Your task to perform on an android device: Clear the cart on newegg. Add "macbook" to the cart on newegg Image 0: 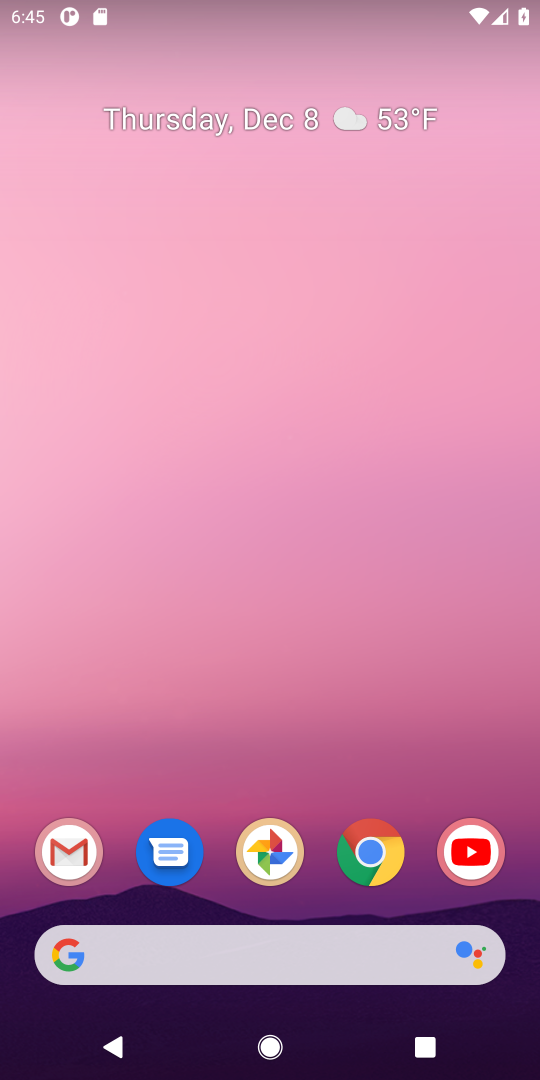
Step 0: click (248, 955)
Your task to perform on an android device: Clear the cart on newegg. Add "macbook" to the cart on newegg Image 1: 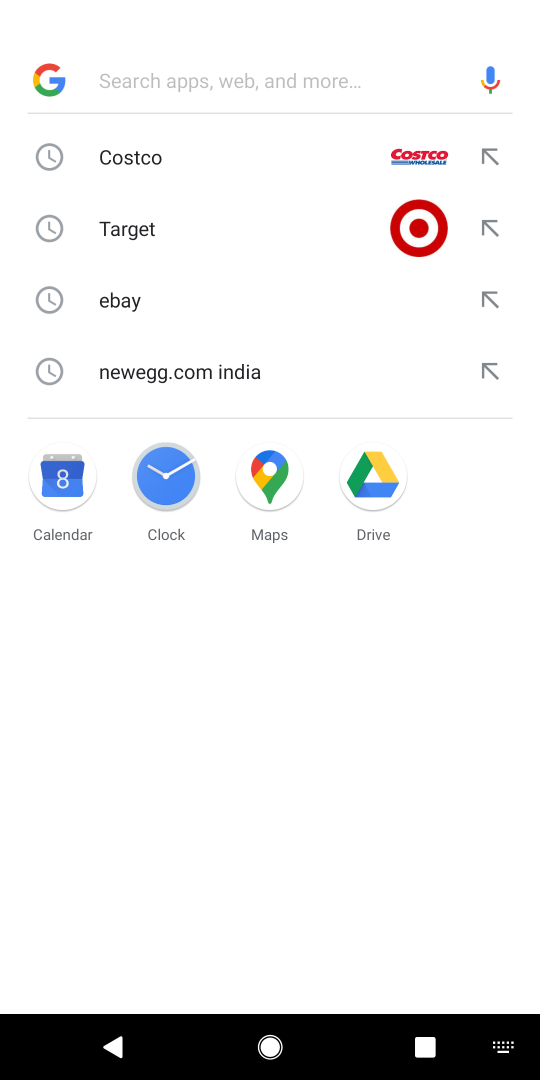
Step 1: click (241, 377)
Your task to perform on an android device: Clear the cart on newegg. Add "macbook" to the cart on newegg Image 2: 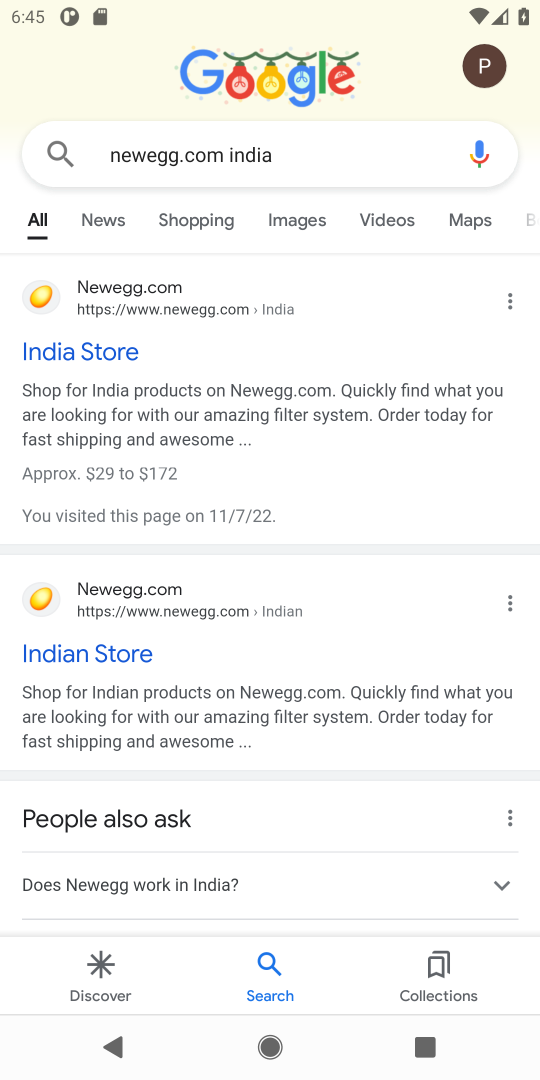
Step 2: click (111, 348)
Your task to perform on an android device: Clear the cart on newegg. Add "macbook" to the cart on newegg Image 3: 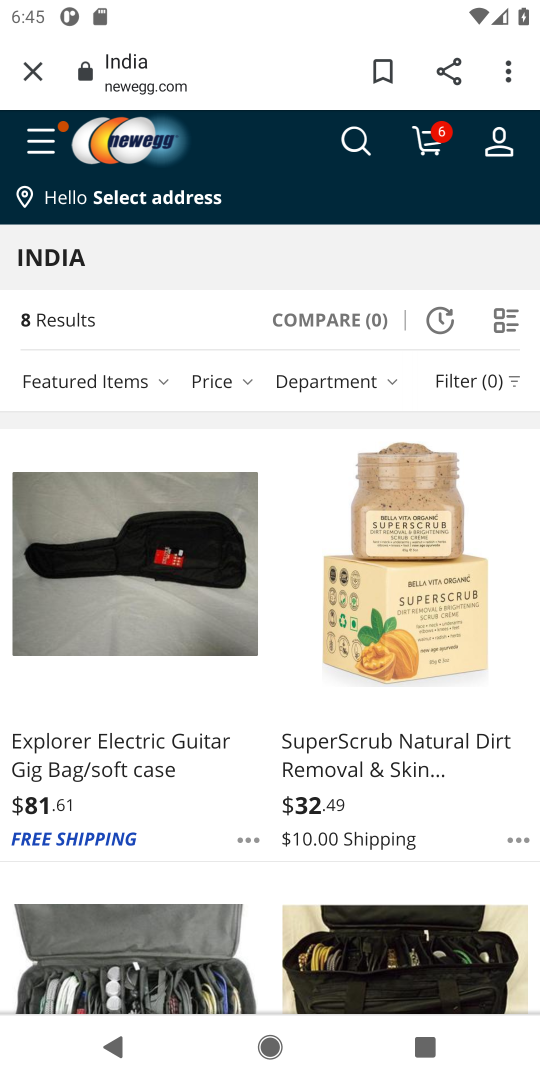
Step 3: click (350, 153)
Your task to perform on an android device: Clear the cart on newegg. Add "macbook" to the cart on newegg Image 4: 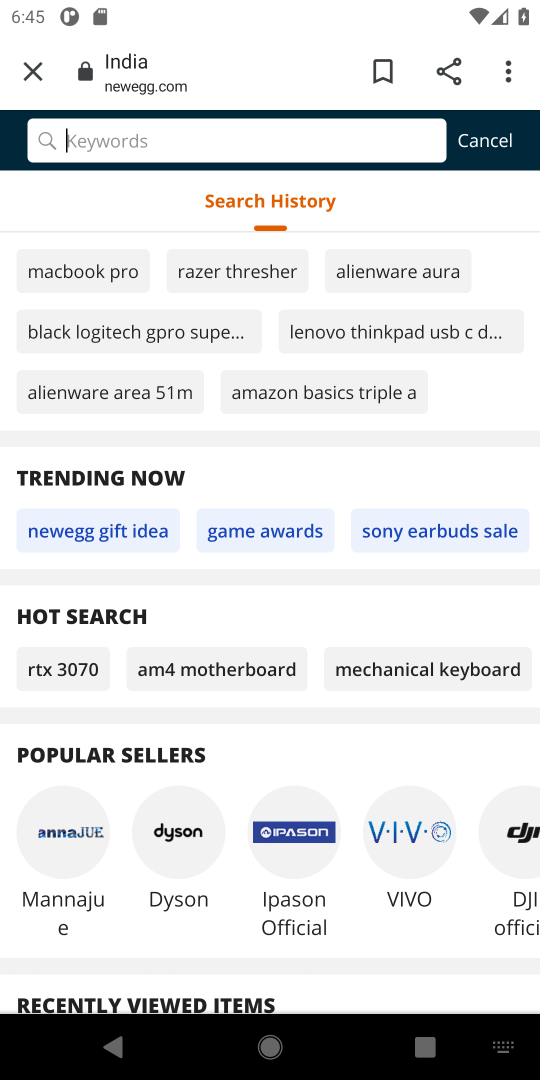
Step 4: click (63, 277)
Your task to perform on an android device: Clear the cart on newegg. Add "macbook" to the cart on newegg Image 5: 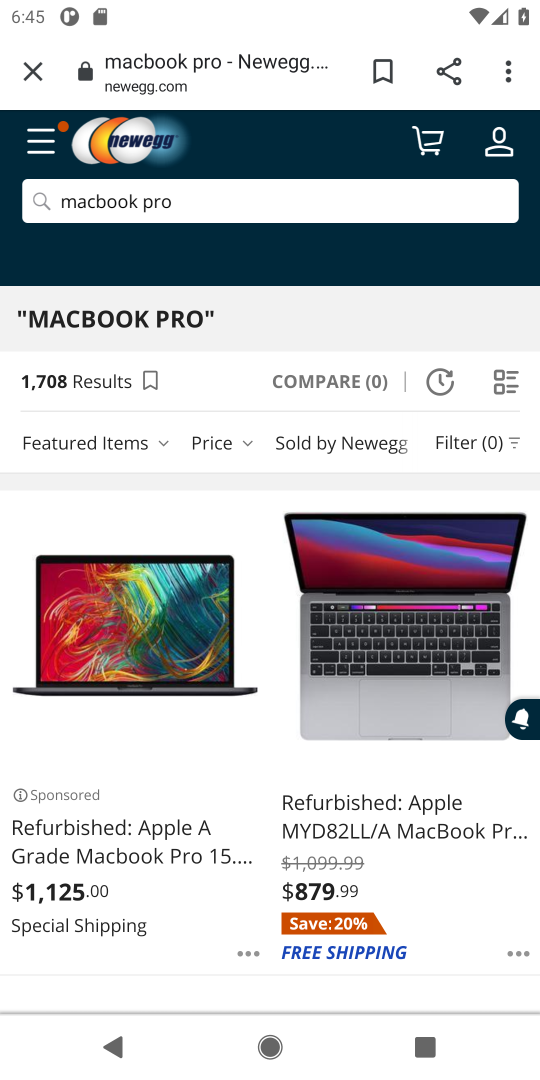
Step 5: click (105, 588)
Your task to perform on an android device: Clear the cart on newegg. Add "macbook" to the cart on newegg Image 6: 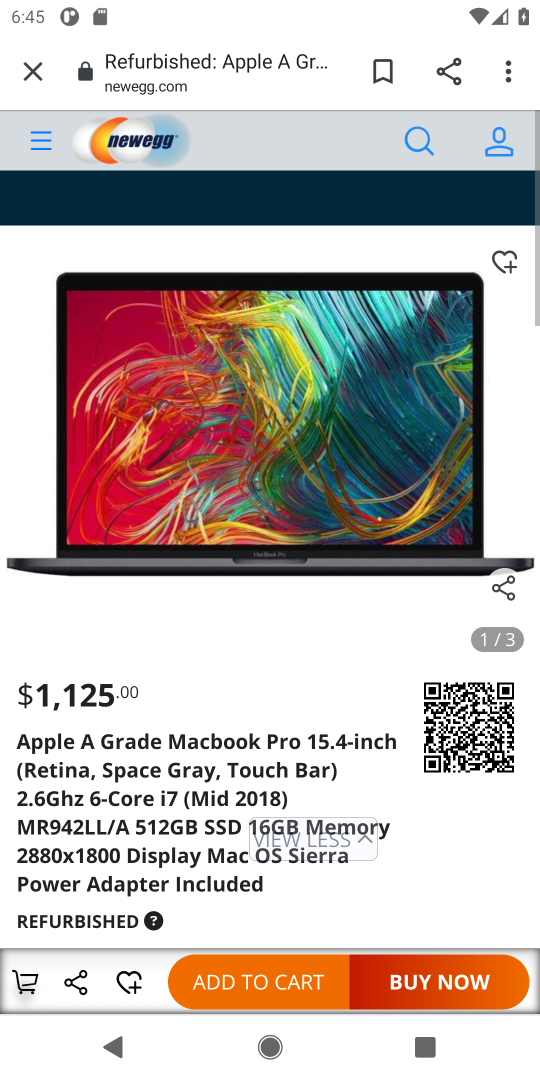
Step 6: click (259, 993)
Your task to perform on an android device: Clear the cart on newegg. Add "macbook" to the cart on newegg Image 7: 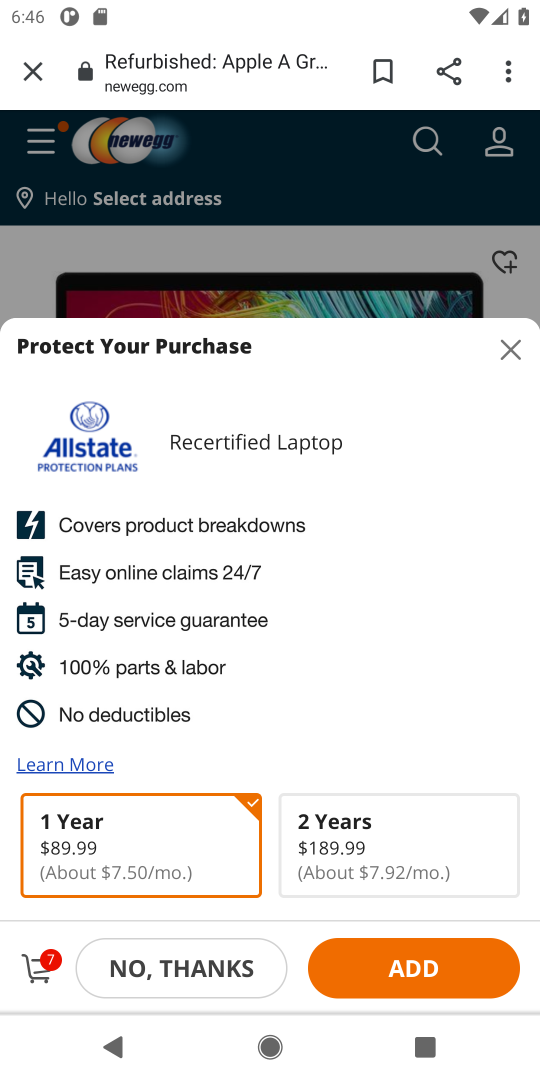
Step 7: click (365, 978)
Your task to perform on an android device: Clear the cart on newegg. Add "macbook" to the cart on newegg Image 8: 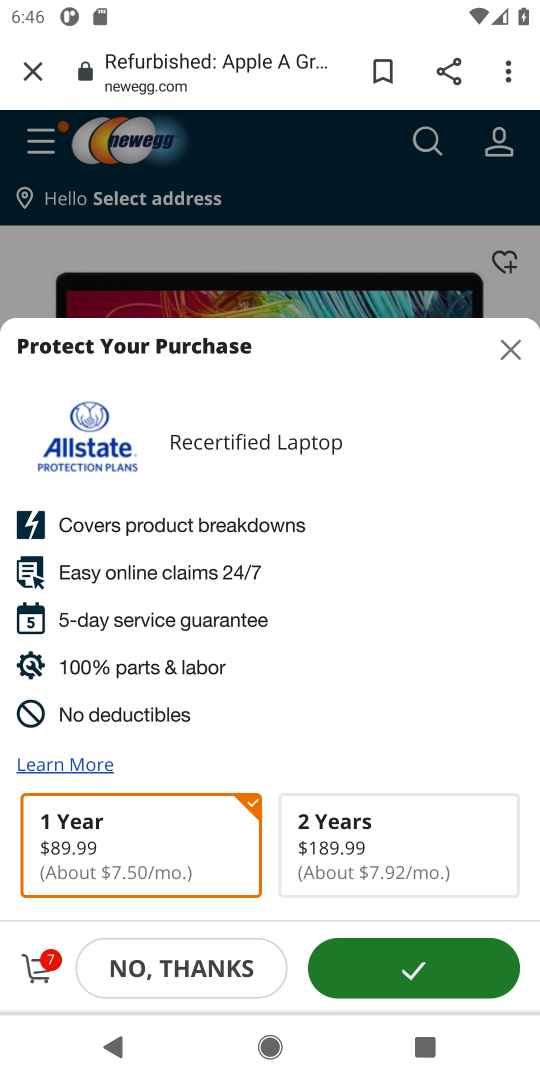
Step 8: task complete